Your task to perform on an android device: Open Chrome and go to the settings page Image 0: 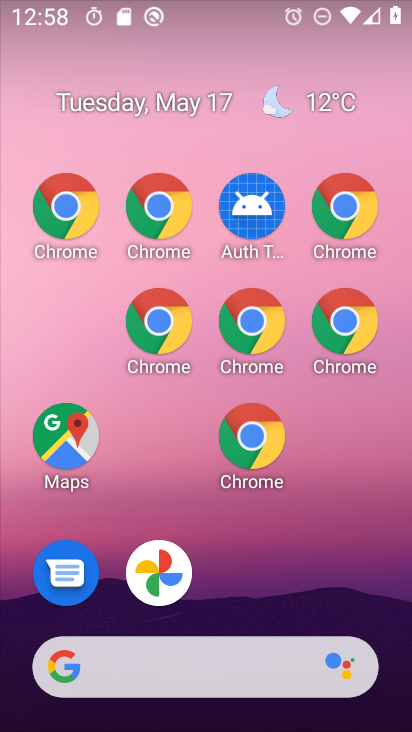
Step 0: drag from (290, 703) to (221, 207)
Your task to perform on an android device: Open Chrome and go to the settings page Image 1: 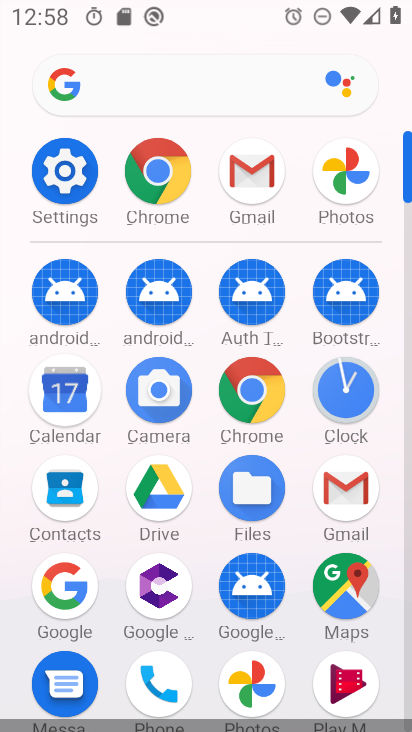
Step 1: click (77, 171)
Your task to perform on an android device: Open Chrome and go to the settings page Image 2: 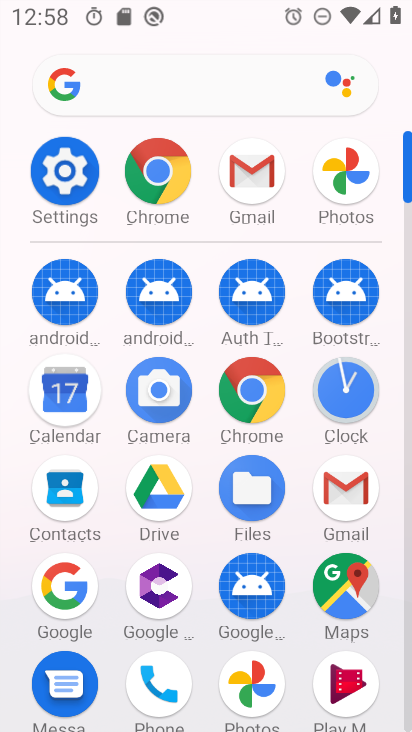
Step 2: click (78, 172)
Your task to perform on an android device: Open Chrome and go to the settings page Image 3: 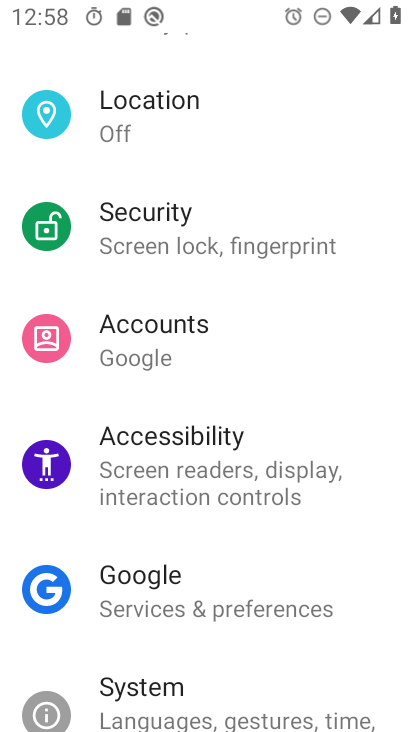
Step 3: drag from (204, 494) to (203, 224)
Your task to perform on an android device: Open Chrome and go to the settings page Image 4: 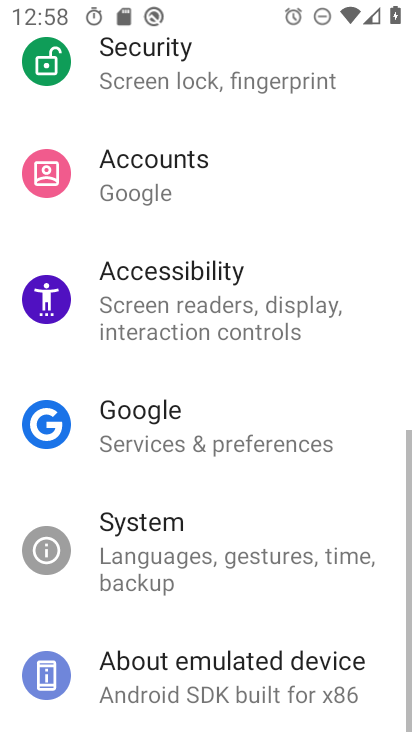
Step 4: drag from (211, 405) to (213, 93)
Your task to perform on an android device: Open Chrome and go to the settings page Image 5: 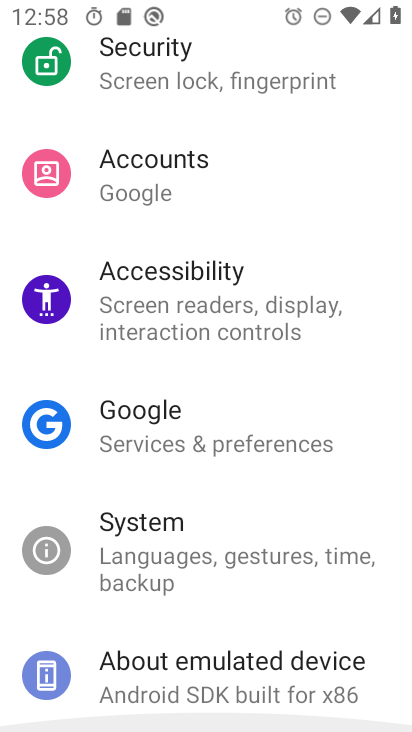
Step 5: drag from (199, 366) to (269, 42)
Your task to perform on an android device: Open Chrome and go to the settings page Image 6: 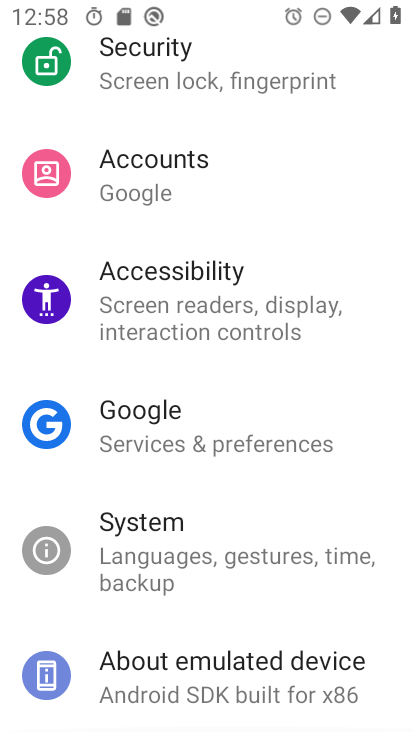
Step 6: drag from (185, 160) to (184, 533)
Your task to perform on an android device: Open Chrome and go to the settings page Image 7: 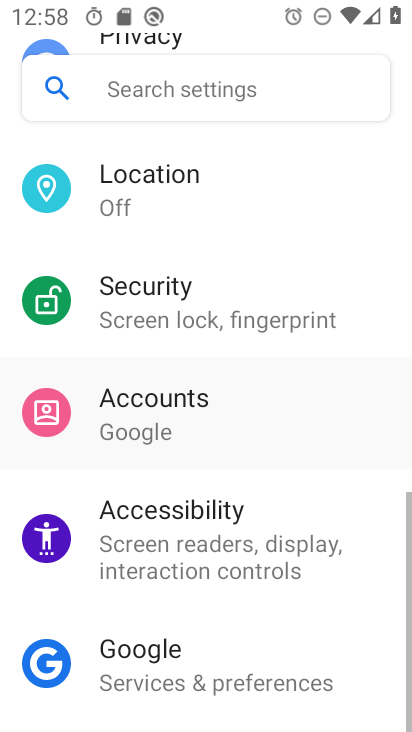
Step 7: drag from (109, 229) to (108, 556)
Your task to perform on an android device: Open Chrome and go to the settings page Image 8: 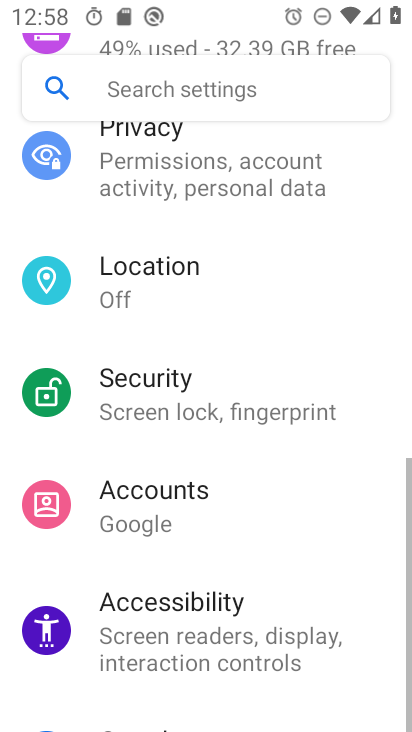
Step 8: drag from (96, 293) to (169, 537)
Your task to perform on an android device: Open Chrome and go to the settings page Image 9: 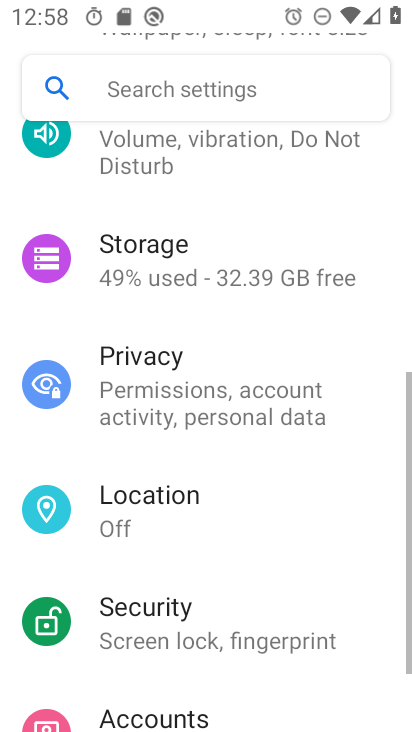
Step 9: drag from (195, 265) to (193, 503)
Your task to perform on an android device: Open Chrome and go to the settings page Image 10: 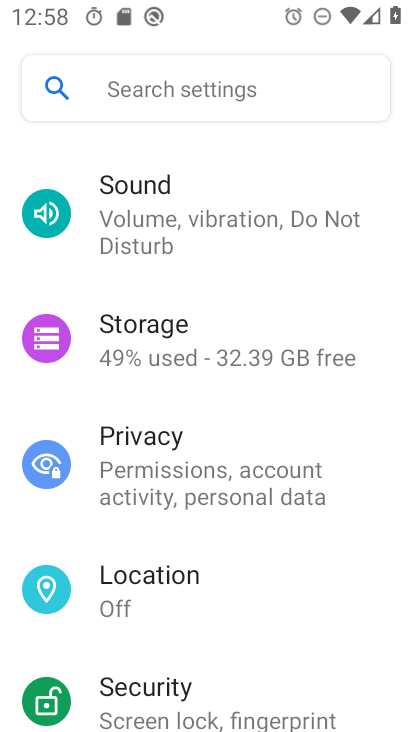
Step 10: drag from (218, 463) to (247, 147)
Your task to perform on an android device: Open Chrome and go to the settings page Image 11: 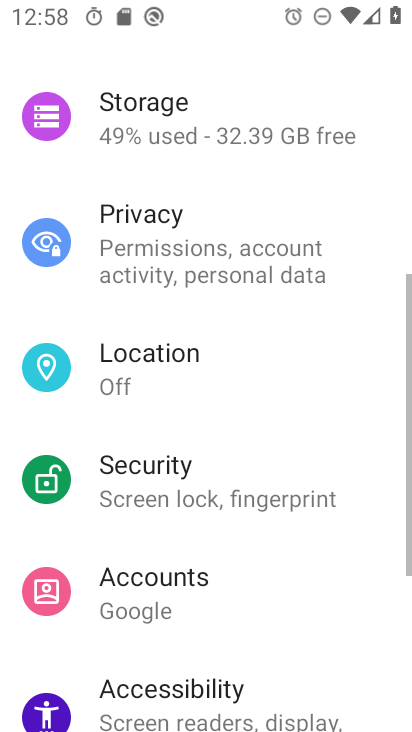
Step 11: drag from (252, 453) to (288, 106)
Your task to perform on an android device: Open Chrome and go to the settings page Image 12: 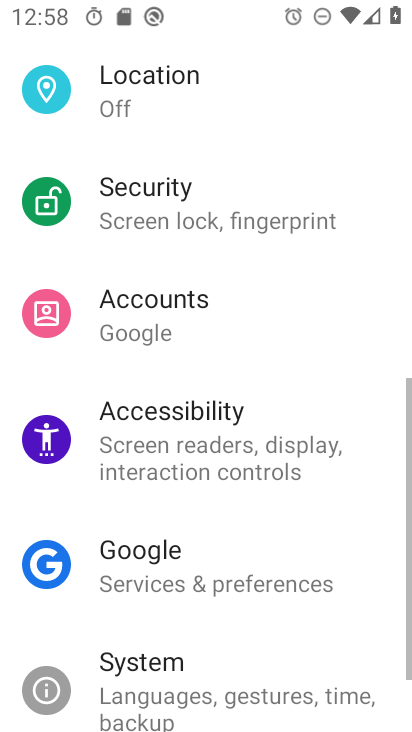
Step 12: drag from (224, 486) to (305, 167)
Your task to perform on an android device: Open Chrome and go to the settings page Image 13: 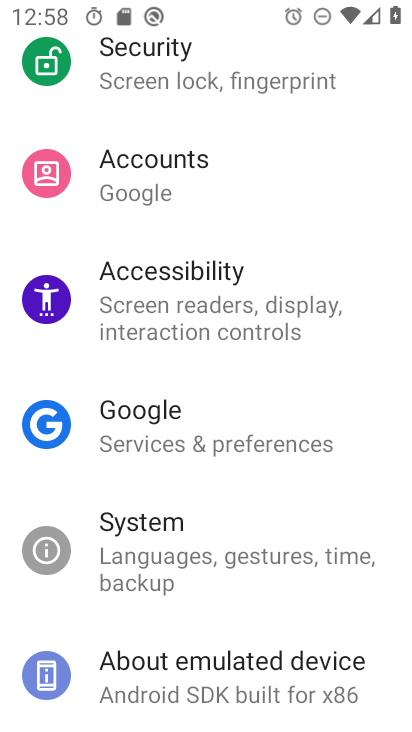
Step 13: press back button
Your task to perform on an android device: Open Chrome and go to the settings page Image 14: 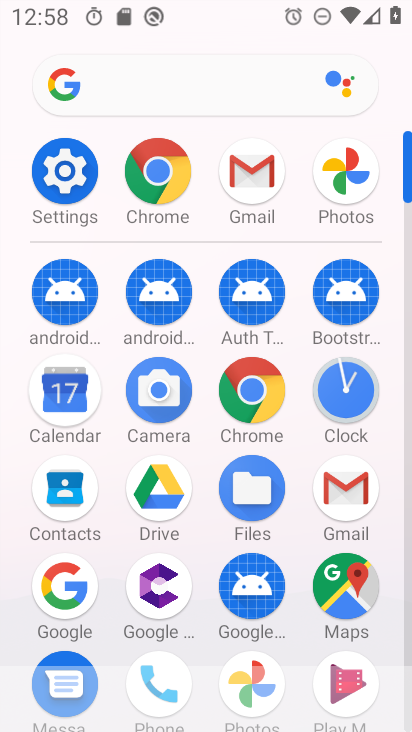
Step 14: click (250, 406)
Your task to perform on an android device: Open Chrome and go to the settings page Image 15: 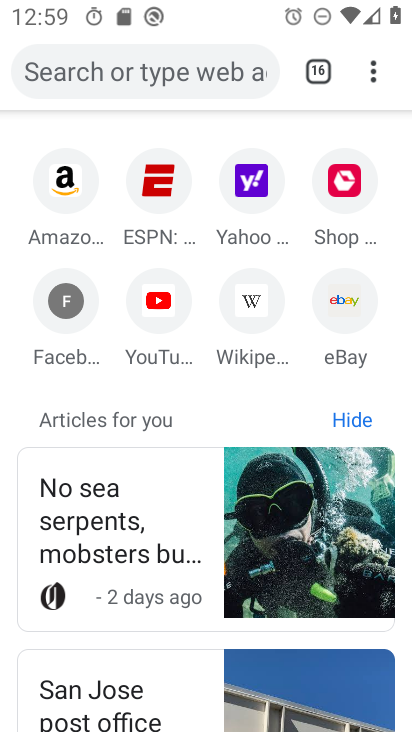
Step 15: drag from (376, 67) to (128, 607)
Your task to perform on an android device: Open Chrome and go to the settings page Image 16: 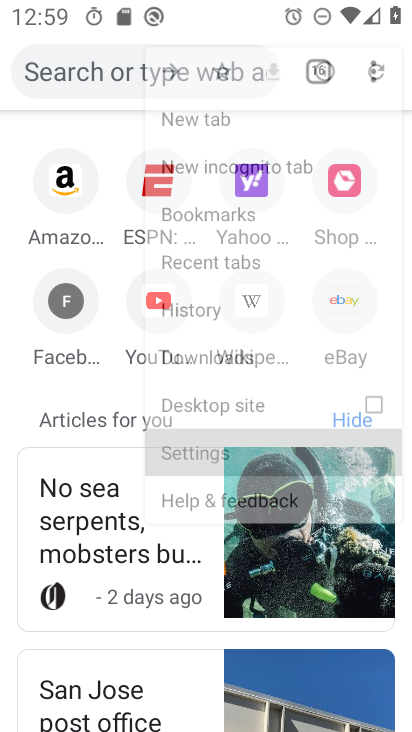
Step 16: click (137, 603)
Your task to perform on an android device: Open Chrome and go to the settings page Image 17: 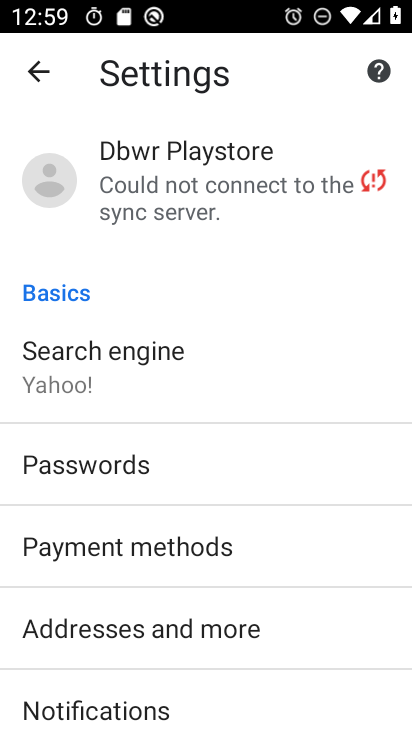
Step 17: task complete